Your task to perform on an android device: see tabs open on other devices in the chrome app Image 0: 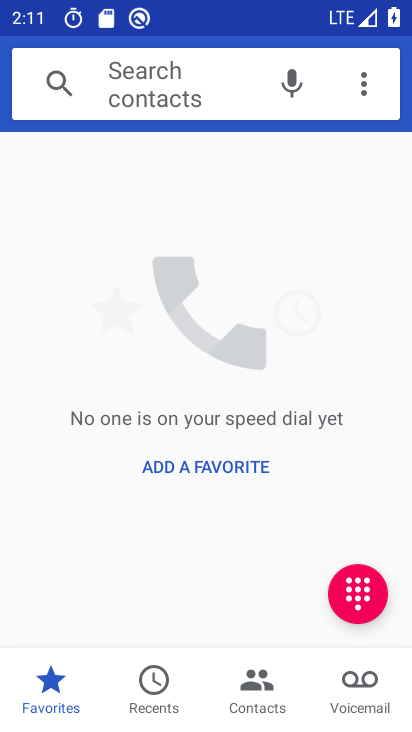
Step 0: press home button
Your task to perform on an android device: see tabs open on other devices in the chrome app Image 1: 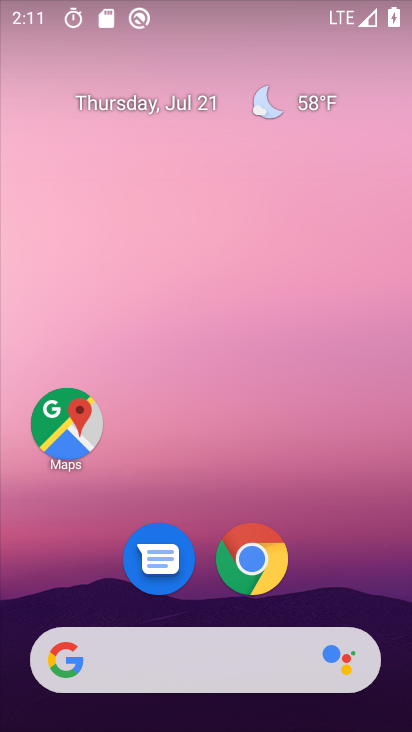
Step 1: drag from (383, 567) to (410, 119)
Your task to perform on an android device: see tabs open on other devices in the chrome app Image 2: 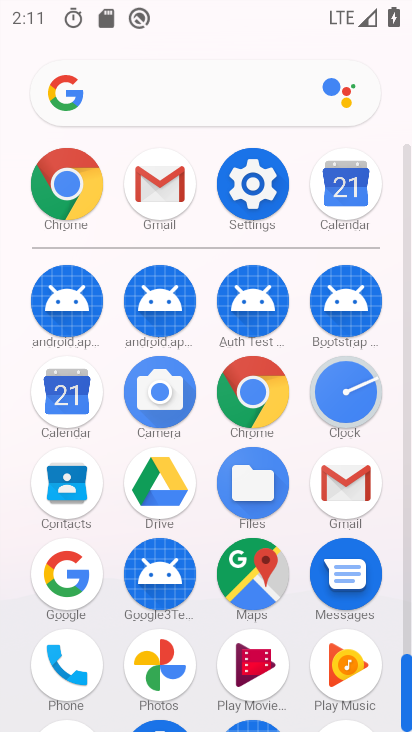
Step 2: click (250, 393)
Your task to perform on an android device: see tabs open on other devices in the chrome app Image 3: 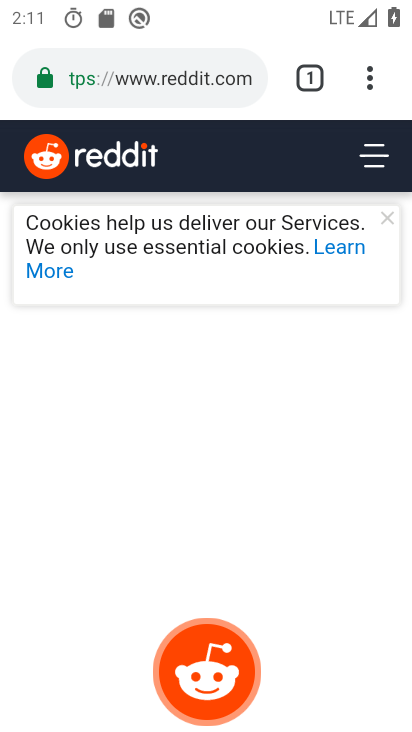
Step 3: click (366, 83)
Your task to perform on an android device: see tabs open on other devices in the chrome app Image 4: 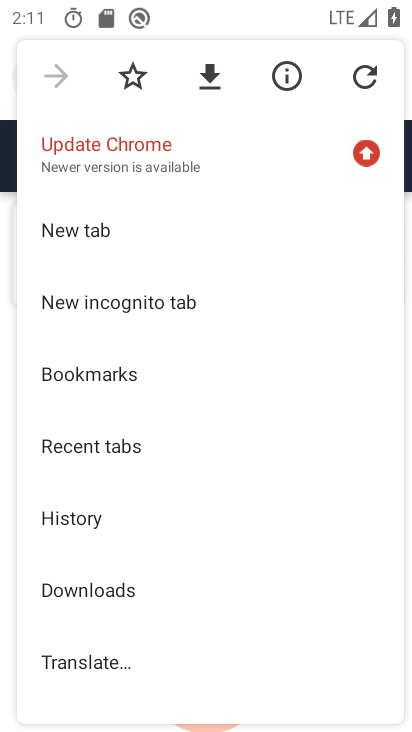
Step 4: drag from (274, 482) to (280, 389)
Your task to perform on an android device: see tabs open on other devices in the chrome app Image 5: 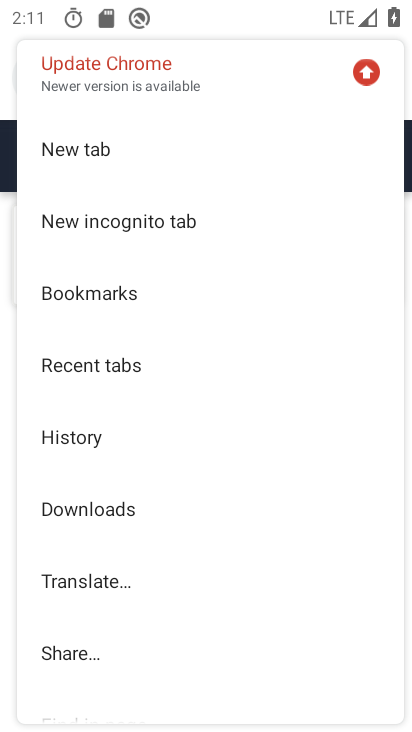
Step 5: drag from (266, 487) to (276, 381)
Your task to perform on an android device: see tabs open on other devices in the chrome app Image 6: 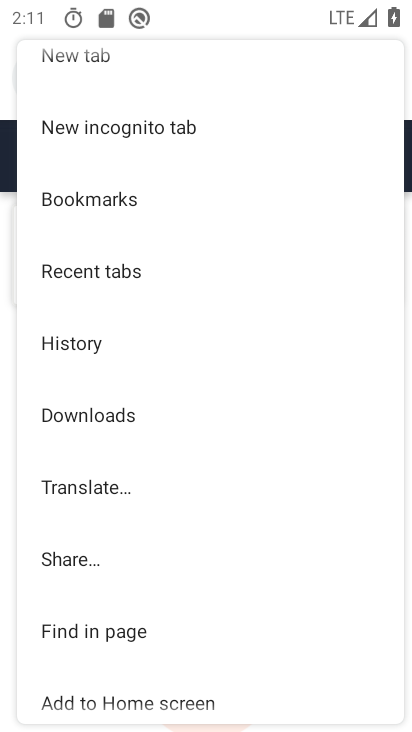
Step 6: click (112, 283)
Your task to perform on an android device: see tabs open on other devices in the chrome app Image 7: 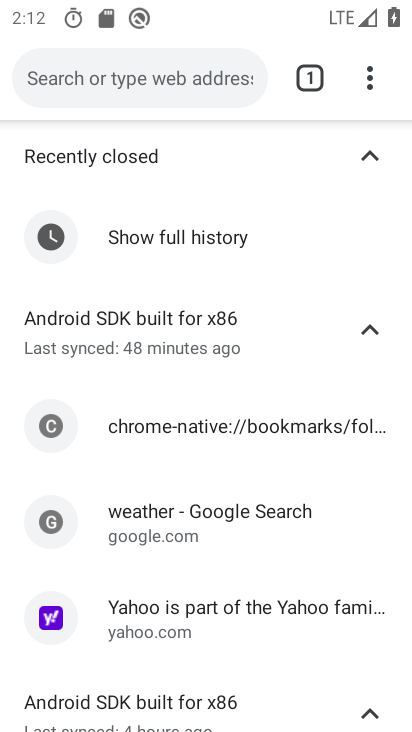
Step 7: click (303, 76)
Your task to perform on an android device: see tabs open on other devices in the chrome app Image 8: 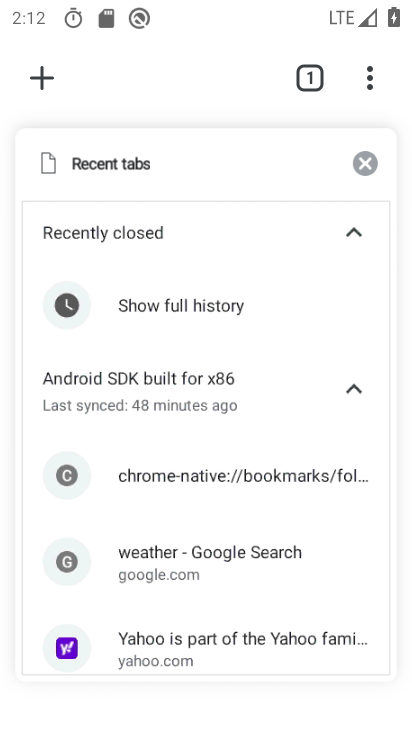
Step 8: task complete